Your task to perform on an android device: Turn off the flashlight Image 0: 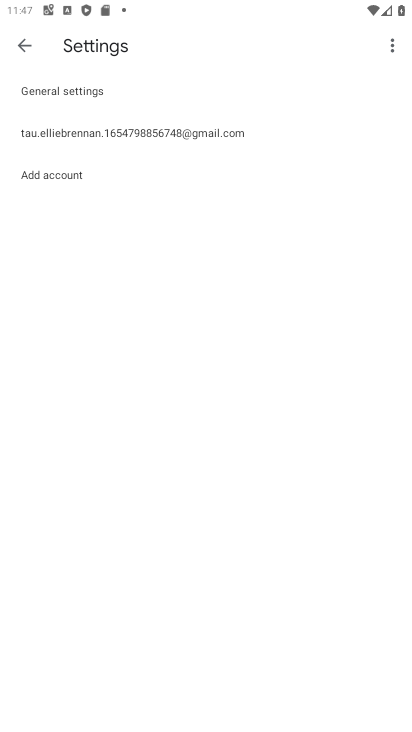
Step 0: press home button
Your task to perform on an android device: Turn off the flashlight Image 1: 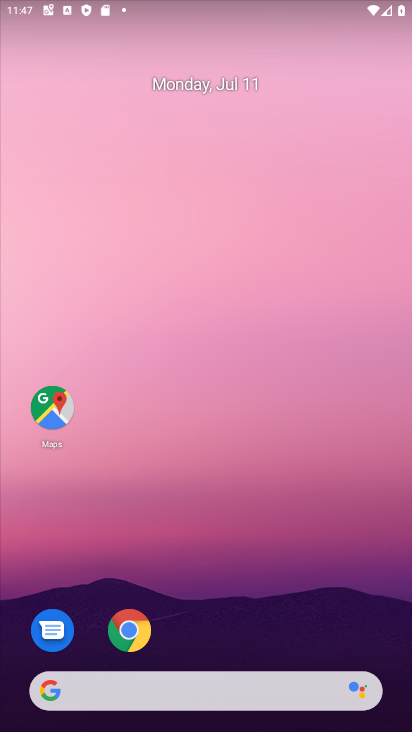
Step 1: drag from (222, 24) to (193, 375)
Your task to perform on an android device: Turn off the flashlight Image 2: 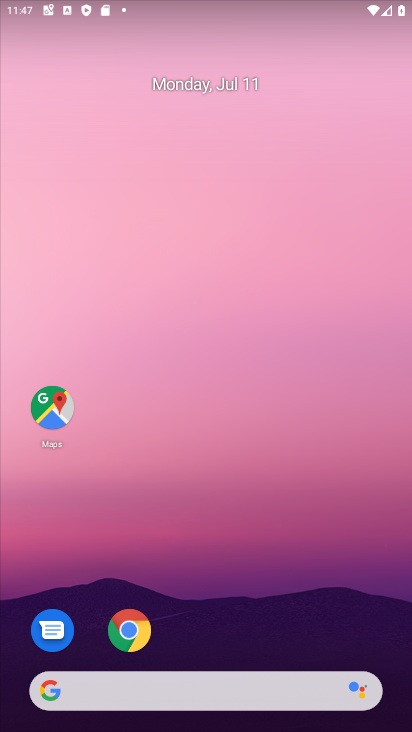
Step 2: drag from (225, 24) to (222, 419)
Your task to perform on an android device: Turn off the flashlight Image 3: 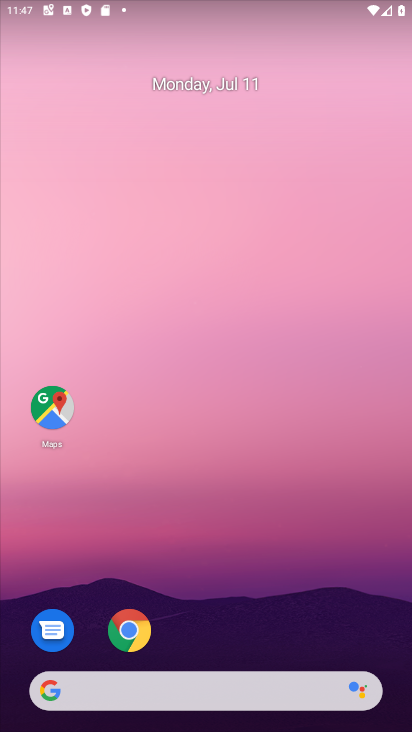
Step 3: drag from (235, 21) to (231, 493)
Your task to perform on an android device: Turn off the flashlight Image 4: 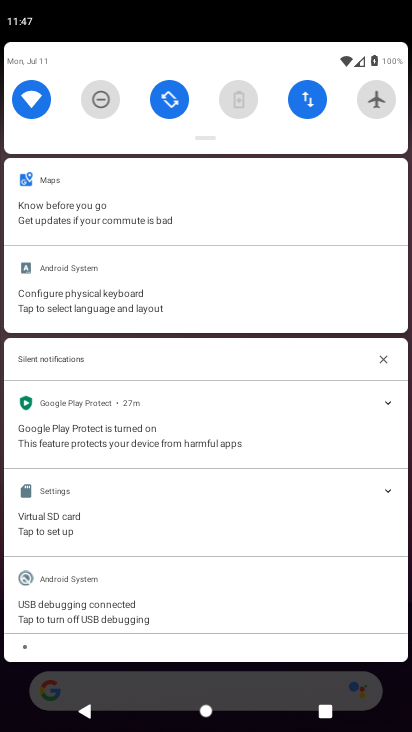
Step 4: drag from (203, 137) to (203, 421)
Your task to perform on an android device: Turn off the flashlight Image 5: 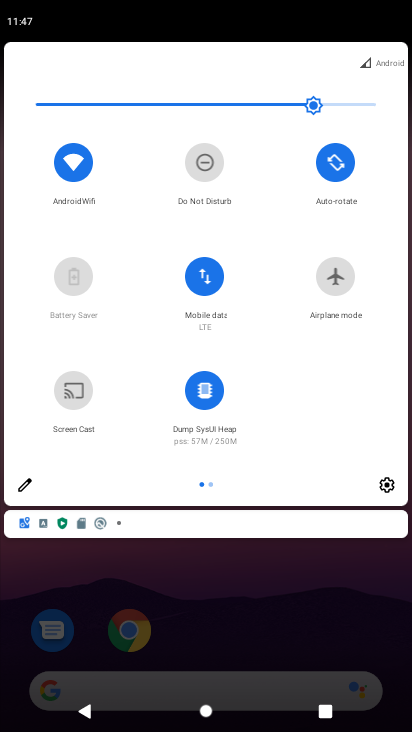
Step 5: click (18, 481)
Your task to perform on an android device: Turn off the flashlight Image 6: 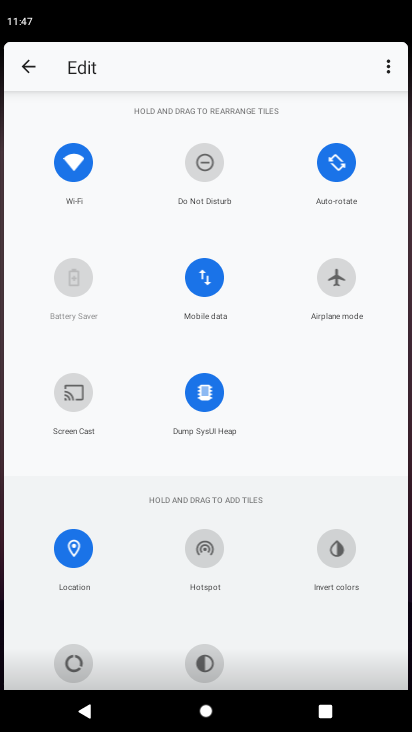
Step 6: task complete